Your task to perform on an android device: Open internet settings Image 0: 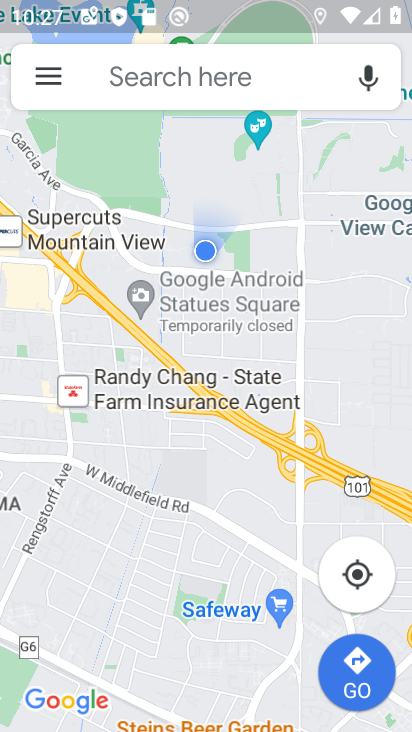
Step 0: press home button
Your task to perform on an android device: Open internet settings Image 1: 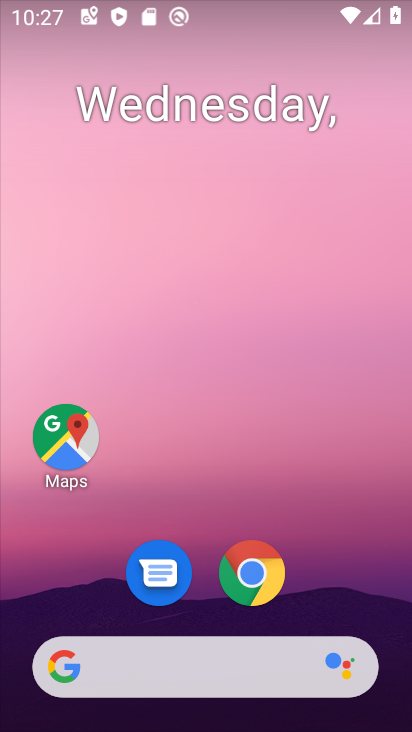
Step 1: drag from (318, 562) to (343, 186)
Your task to perform on an android device: Open internet settings Image 2: 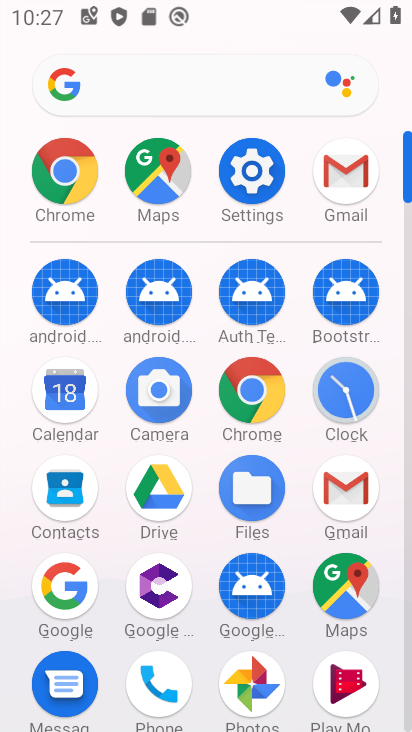
Step 2: click (252, 193)
Your task to perform on an android device: Open internet settings Image 3: 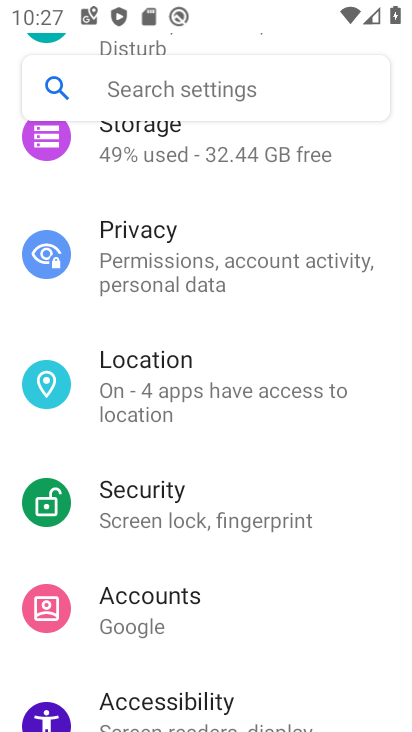
Step 3: drag from (350, 312) to (351, 402)
Your task to perform on an android device: Open internet settings Image 4: 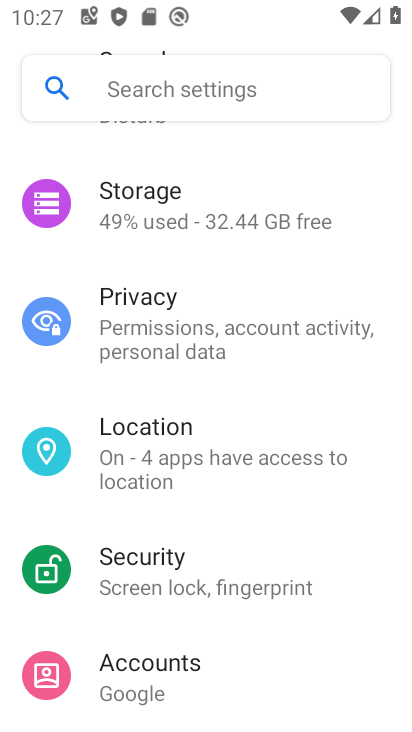
Step 4: drag from (362, 266) to (363, 362)
Your task to perform on an android device: Open internet settings Image 5: 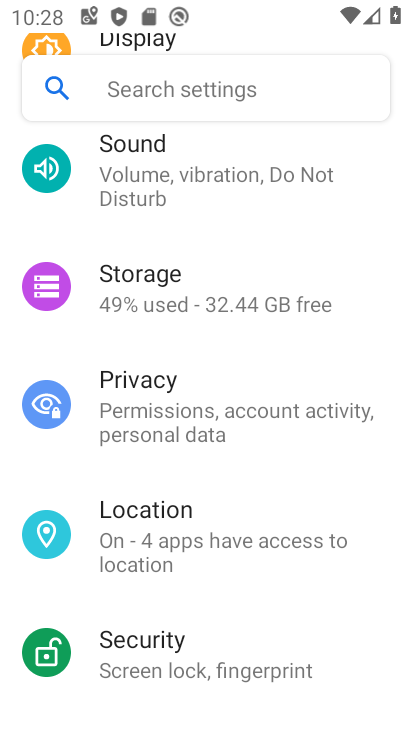
Step 5: drag from (385, 281) to (376, 345)
Your task to perform on an android device: Open internet settings Image 6: 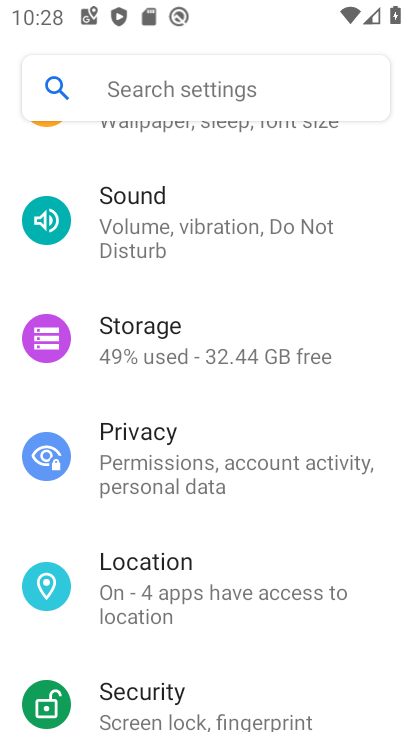
Step 6: drag from (335, 591) to (341, 387)
Your task to perform on an android device: Open internet settings Image 7: 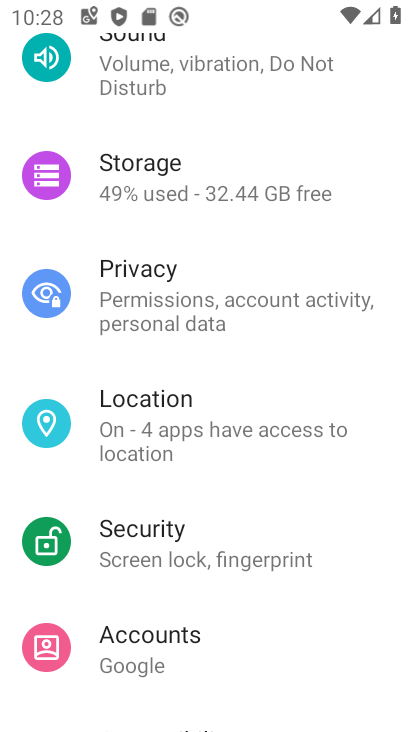
Step 7: drag from (373, 235) to (364, 448)
Your task to perform on an android device: Open internet settings Image 8: 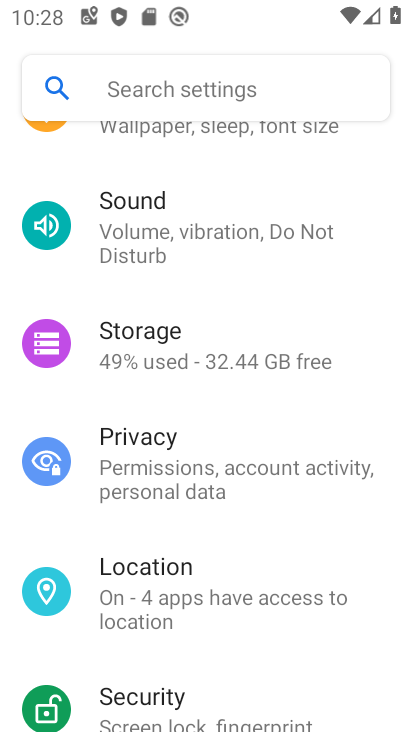
Step 8: drag from (374, 227) to (362, 433)
Your task to perform on an android device: Open internet settings Image 9: 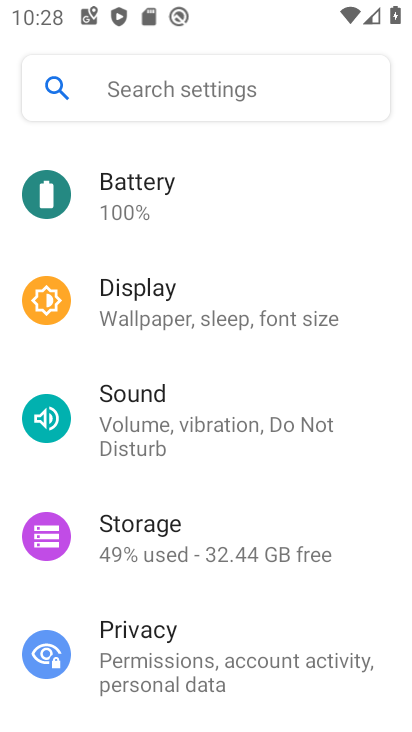
Step 9: drag from (359, 211) to (354, 404)
Your task to perform on an android device: Open internet settings Image 10: 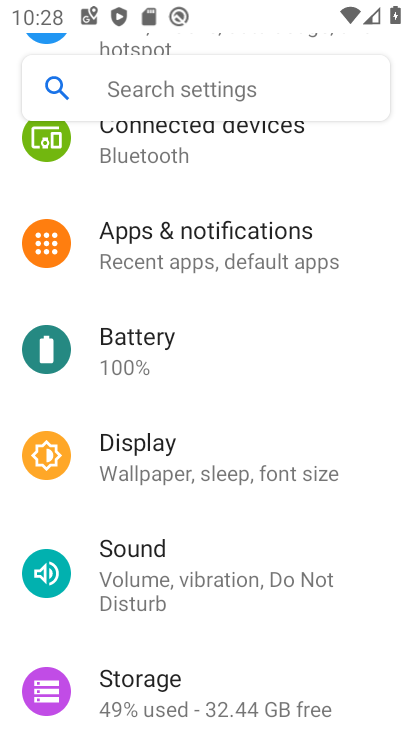
Step 10: drag from (353, 177) to (351, 340)
Your task to perform on an android device: Open internet settings Image 11: 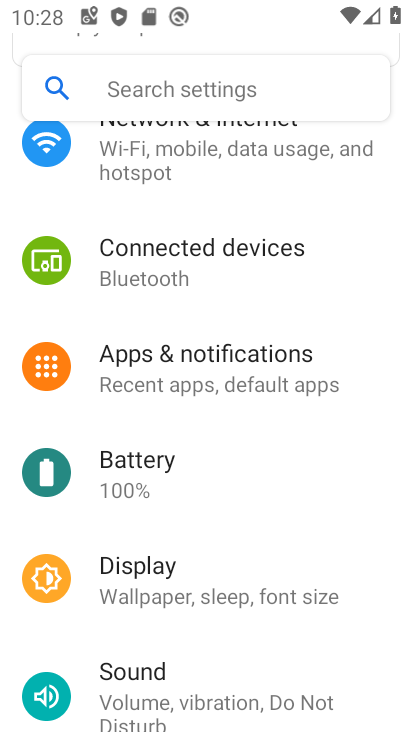
Step 11: drag from (355, 174) to (356, 352)
Your task to perform on an android device: Open internet settings Image 12: 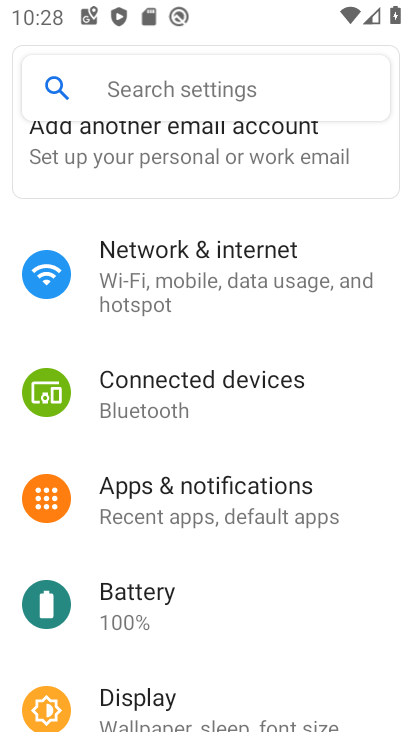
Step 12: click (346, 274)
Your task to perform on an android device: Open internet settings Image 13: 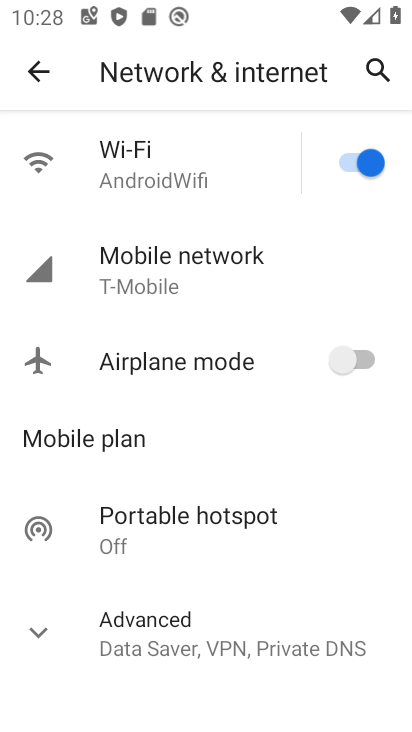
Step 13: task complete